Your task to perform on an android device: Open location settings Image 0: 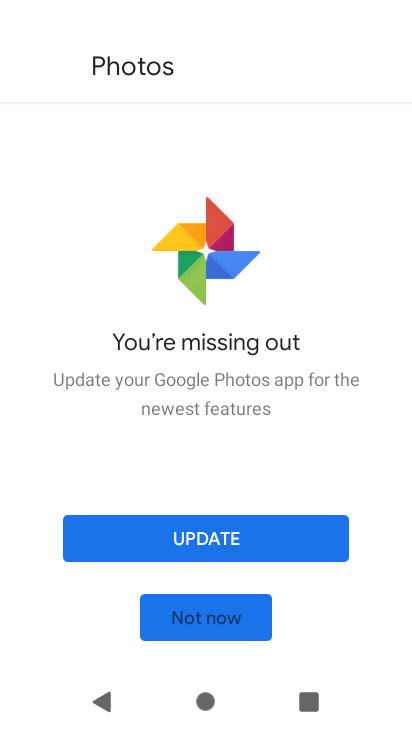
Step 0: press home button
Your task to perform on an android device: Open location settings Image 1: 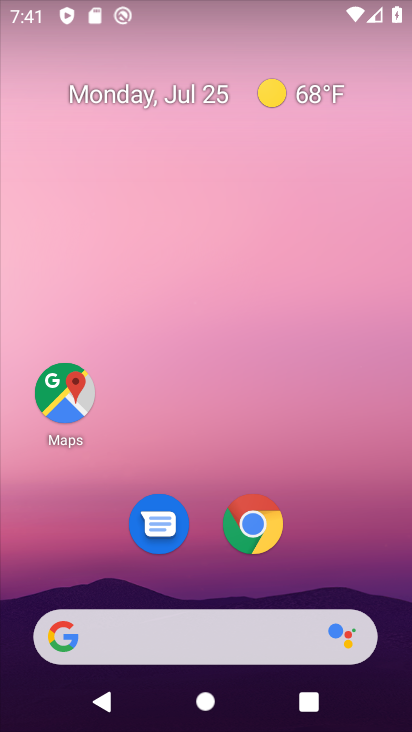
Step 1: drag from (331, 553) to (311, 54)
Your task to perform on an android device: Open location settings Image 2: 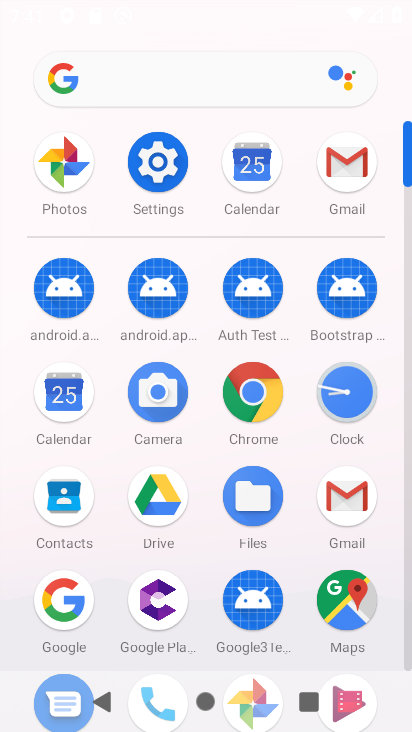
Step 2: click (159, 165)
Your task to perform on an android device: Open location settings Image 3: 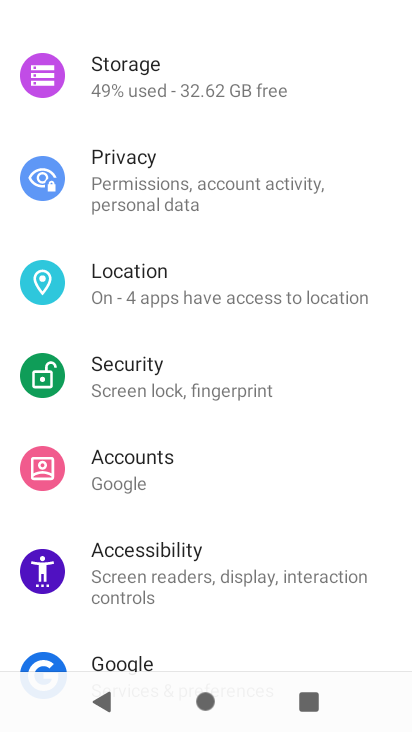
Step 3: click (196, 295)
Your task to perform on an android device: Open location settings Image 4: 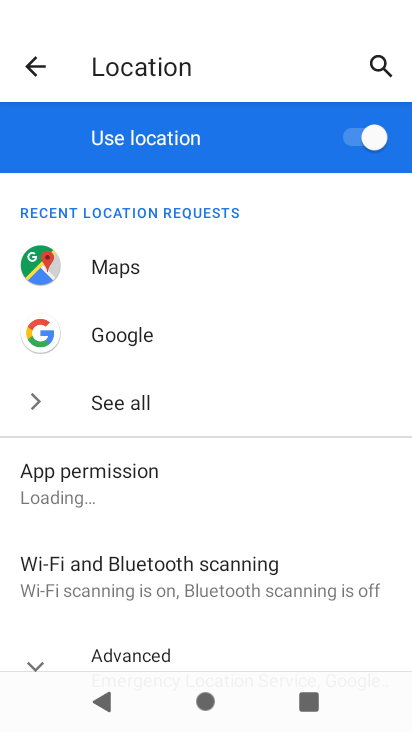
Step 4: task complete